Your task to perform on an android device: Open the calendar and show me this week's events? Image 0: 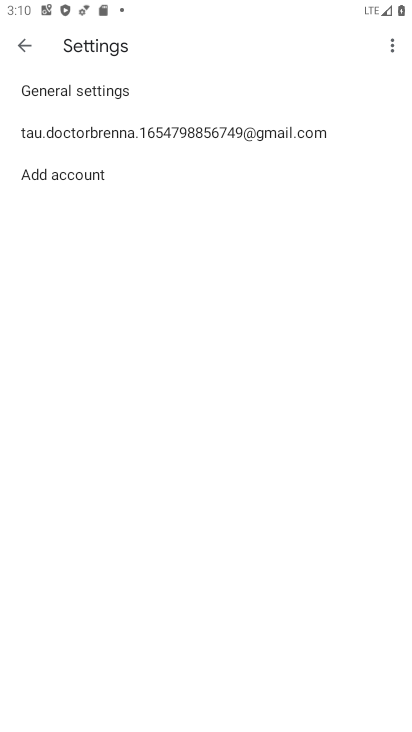
Step 0: press home button
Your task to perform on an android device: Open the calendar and show me this week's events? Image 1: 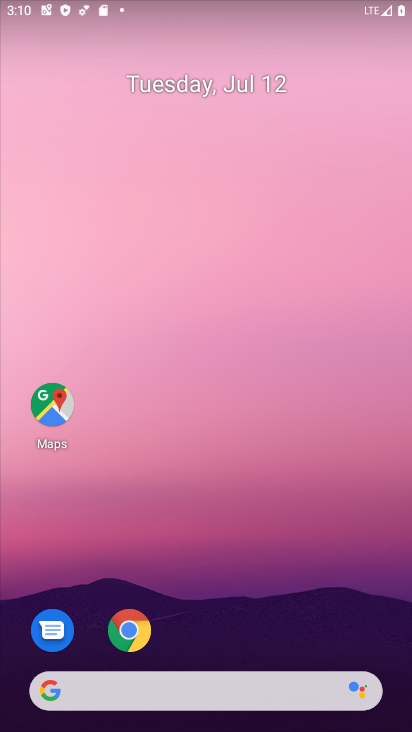
Step 1: drag from (208, 689) to (228, 168)
Your task to perform on an android device: Open the calendar and show me this week's events? Image 2: 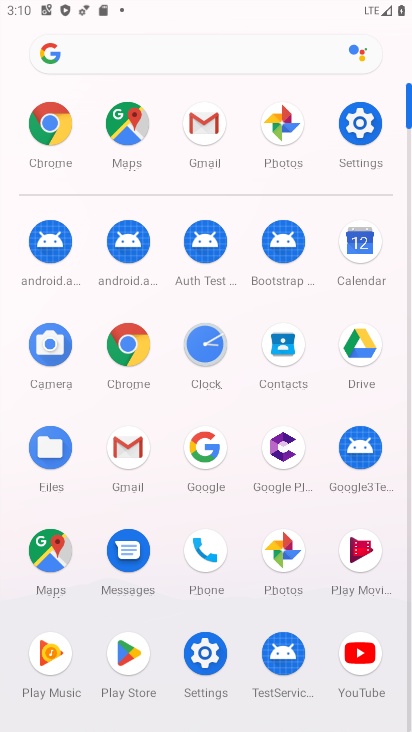
Step 2: click (378, 243)
Your task to perform on an android device: Open the calendar and show me this week's events? Image 3: 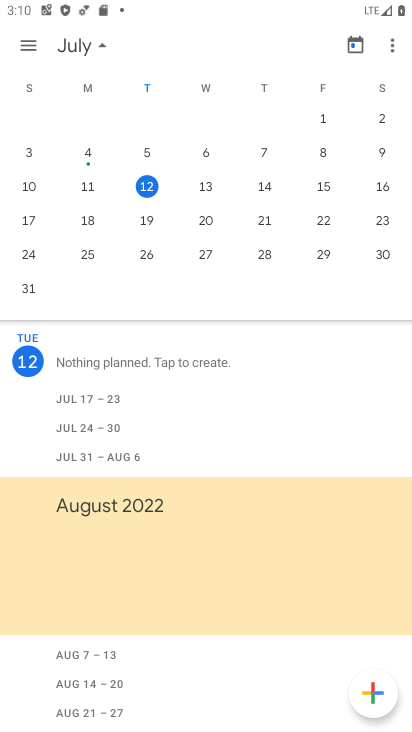
Step 3: click (210, 187)
Your task to perform on an android device: Open the calendar and show me this week's events? Image 4: 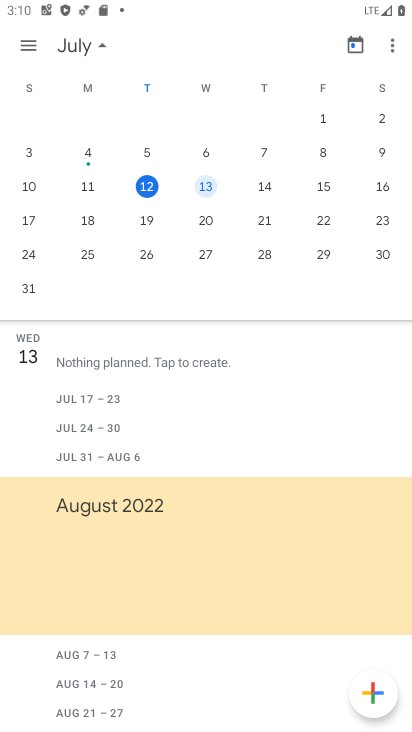
Step 4: task complete